Your task to perform on an android device: Add "macbook" to the cart on ebay, then select checkout. Image 0: 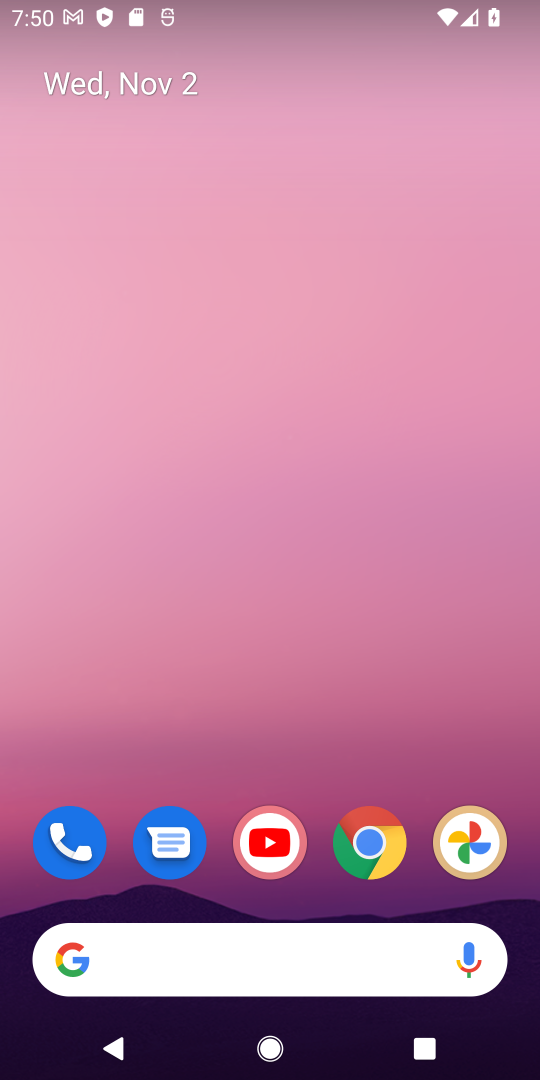
Step 0: drag from (199, 788) to (221, 375)
Your task to perform on an android device: Add "macbook" to the cart on ebay, then select checkout. Image 1: 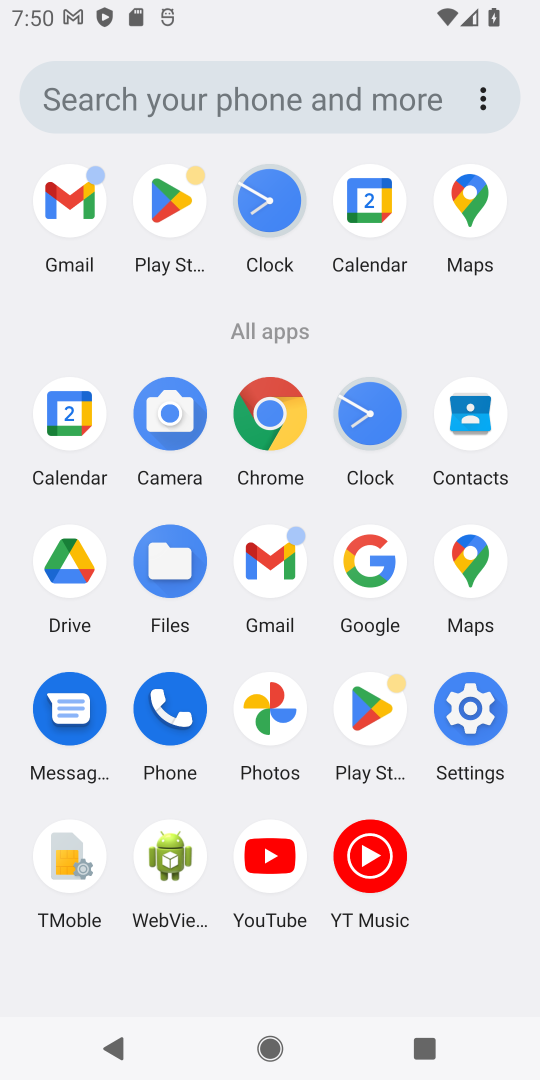
Step 1: click (359, 542)
Your task to perform on an android device: Add "macbook" to the cart on ebay, then select checkout. Image 2: 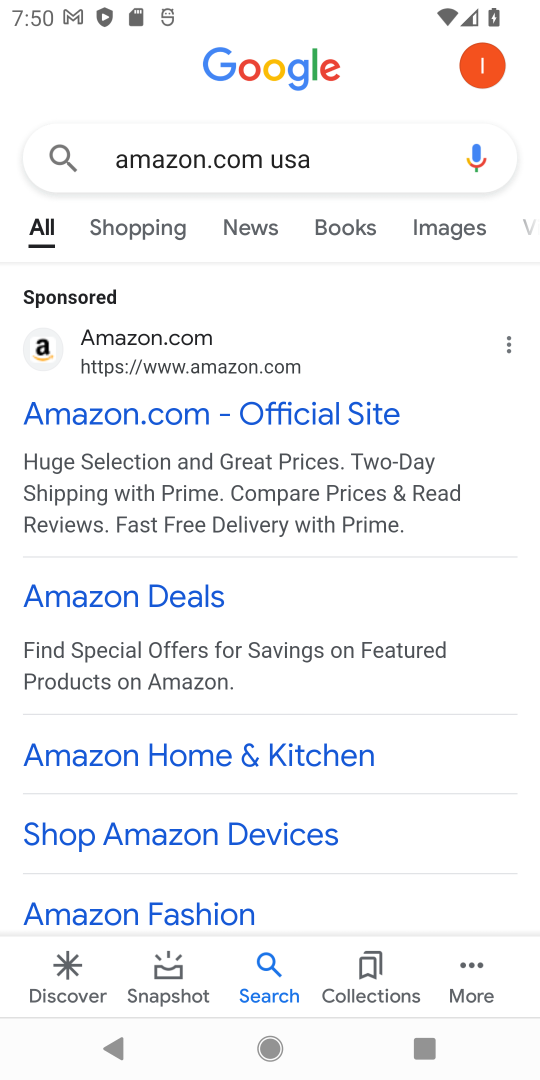
Step 2: click (246, 157)
Your task to perform on an android device: Add "macbook" to the cart on ebay, then select checkout. Image 3: 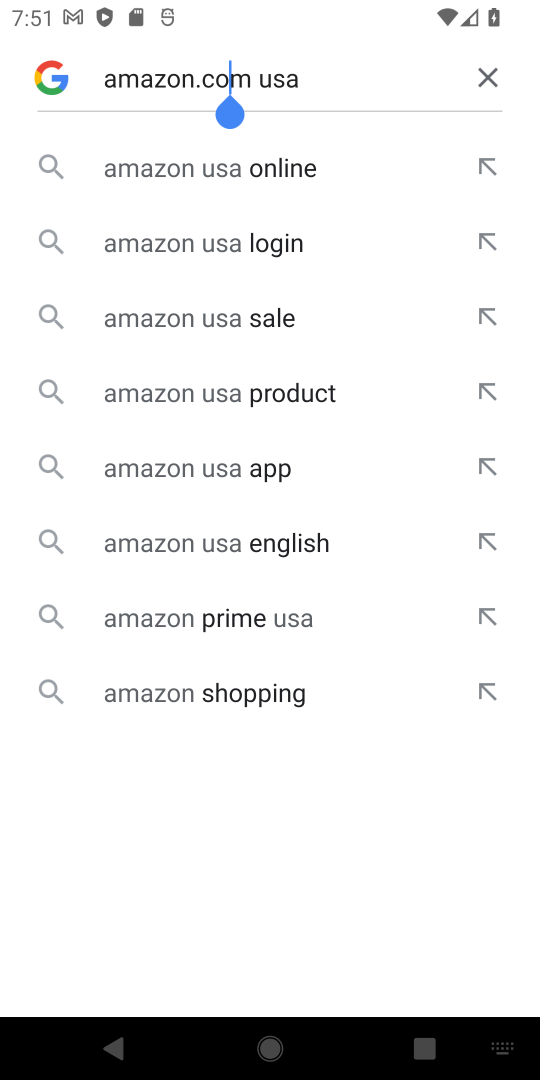
Step 3: click (473, 69)
Your task to perform on an android device: Add "macbook" to the cart on ebay, then select checkout. Image 4: 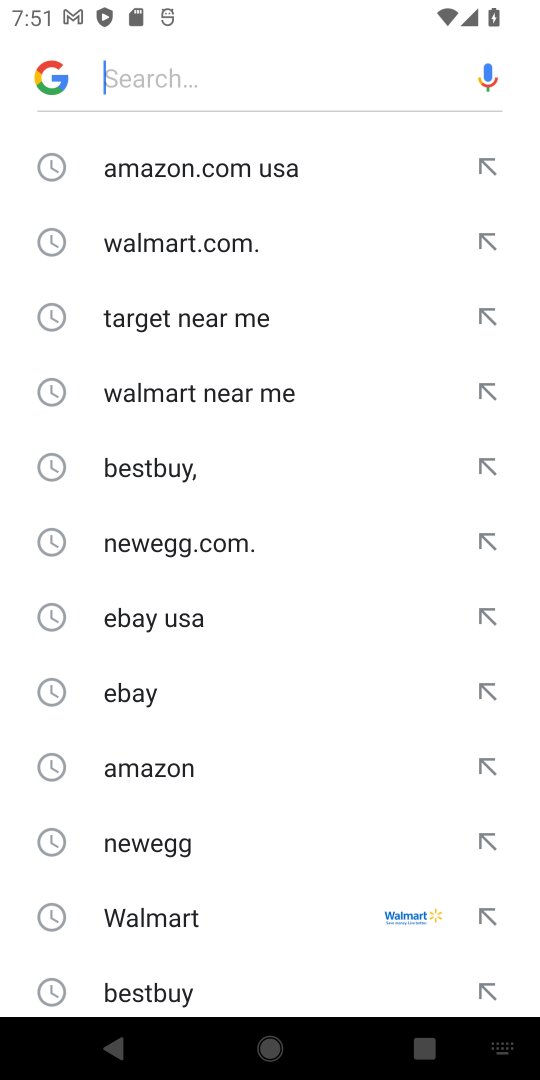
Step 4: click (216, 78)
Your task to perform on an android device: Add "macbook" to the cart on ebay, then select checkout. Image 5: 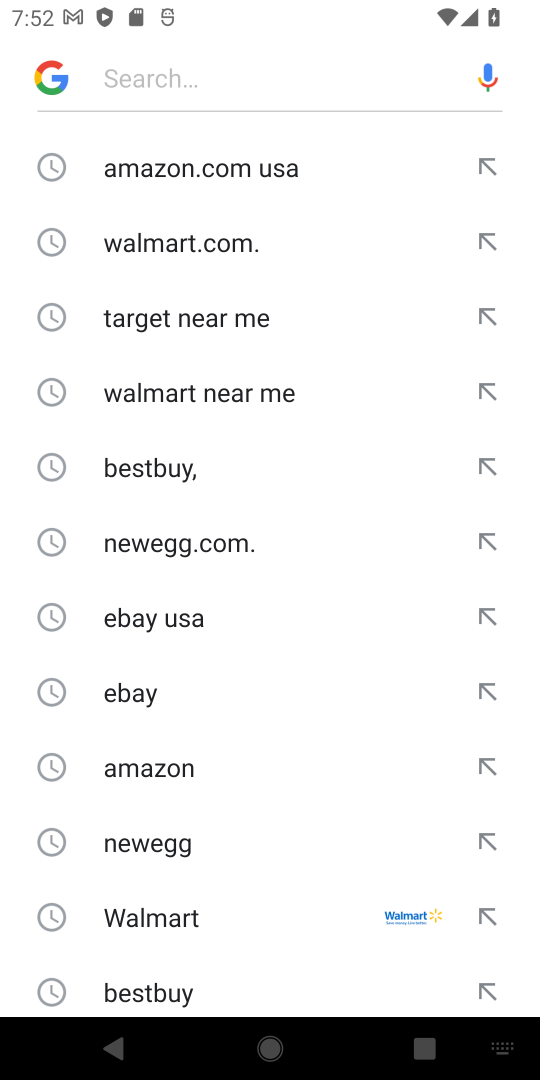
Step 5: click (257, 79)
Your task to perform on an android device: Add "macbook" to the cart on ebay, then select checkout. Image 6: 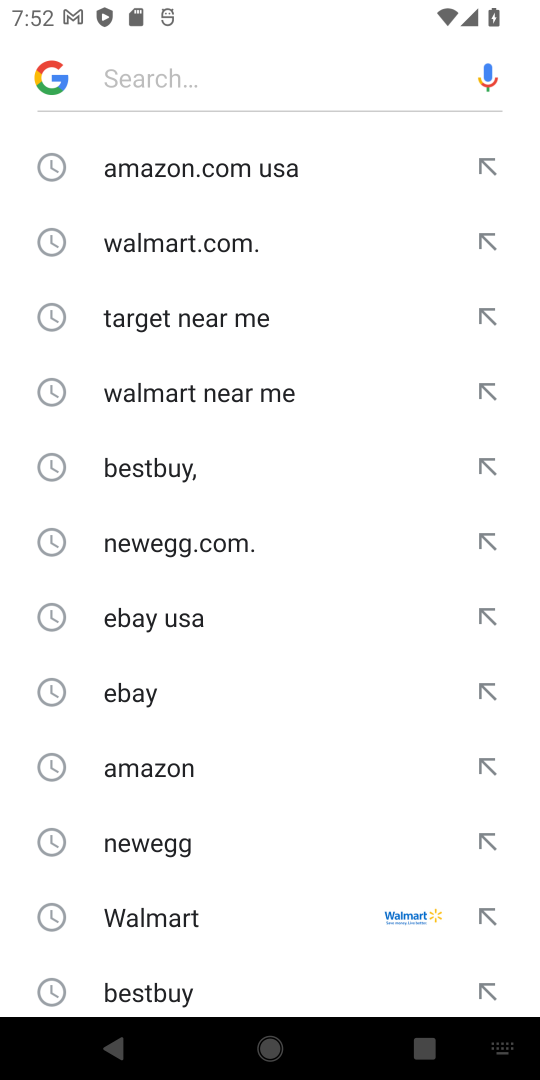
Step 6: type "ebay "
Your task to perform on an android device: Add "macbook" to the cart on ebay, then select checkout. Image 7: 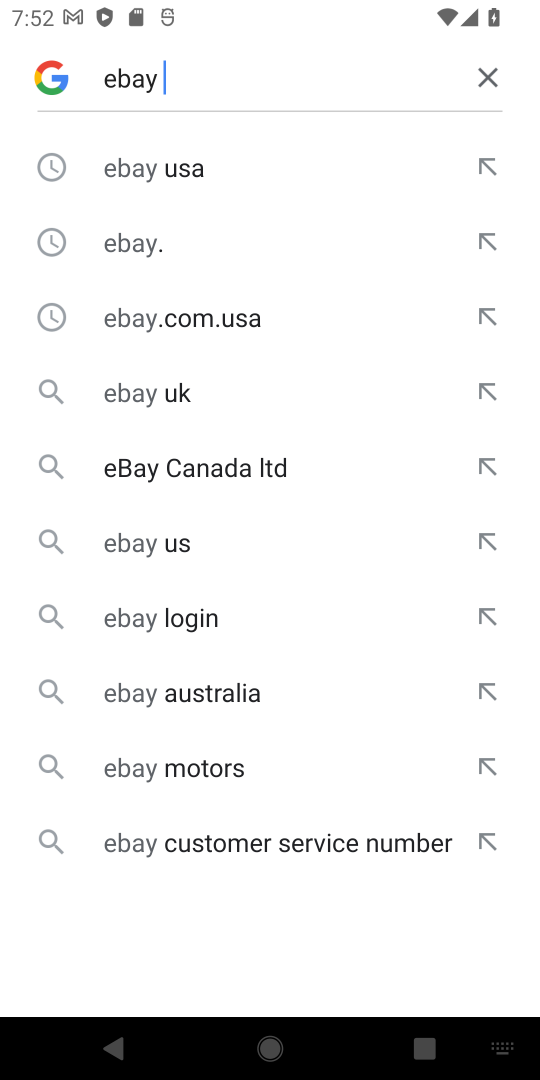
Step 7: click (187, 163)
Your task to perform on an android device: Add "macbook" to the cart on ebay, then select checkout. Image 8: 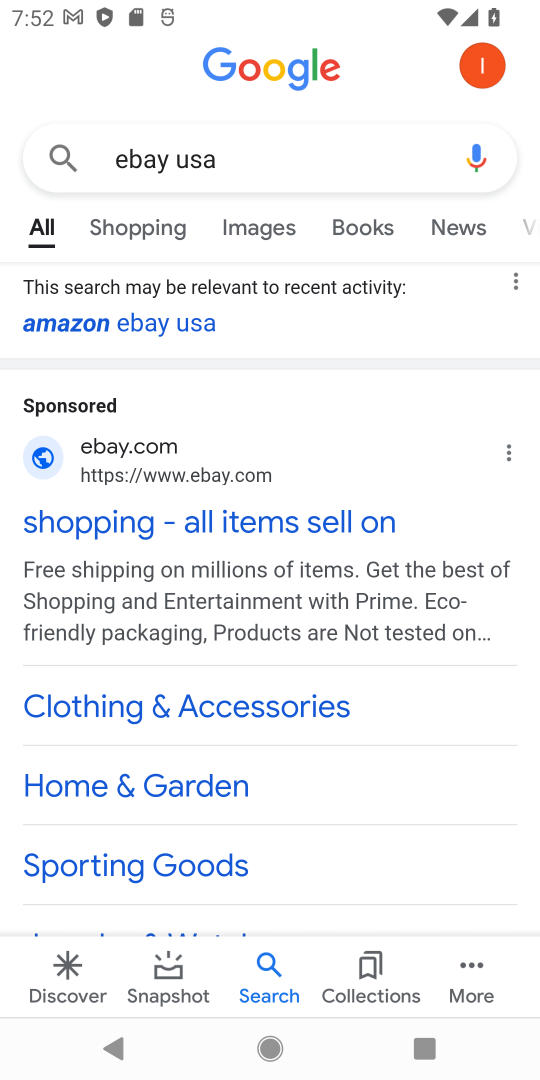
Step 8: drag from (167, 880) to (204, 315)
Your task to perform on an android device: Add "macbook" to the cart on ebay, then select checkout. Image 9: 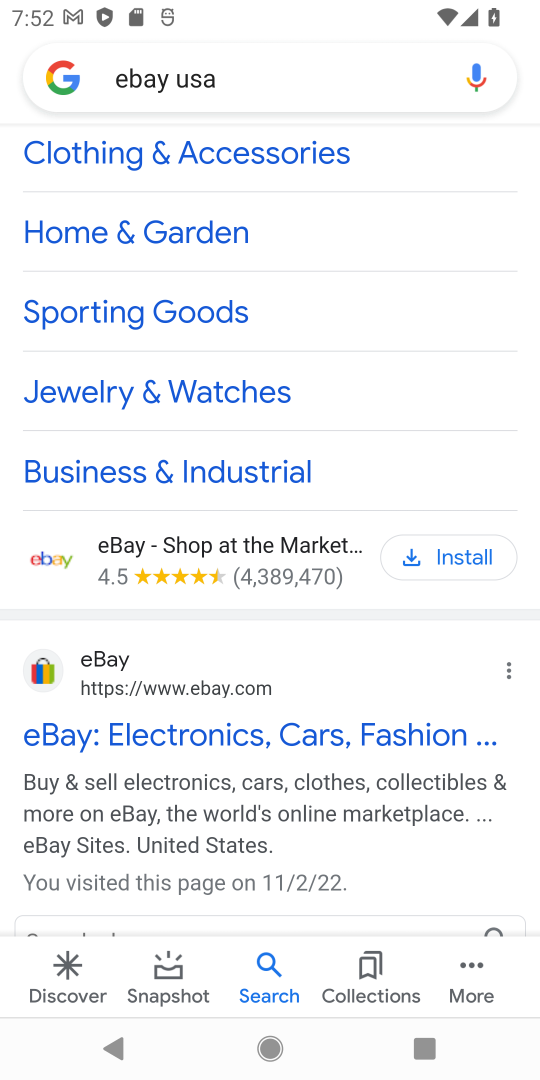
Step 9: click (38, 677)
Your task to perform on an android device: Add "macbook" to the cart on ebay, then select checkout. Image 10: 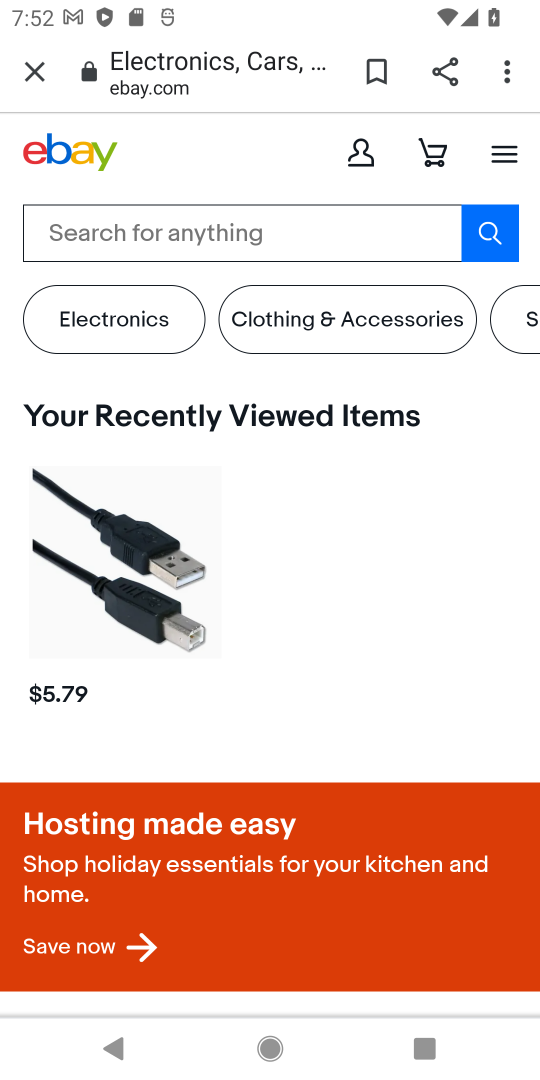
Step 10: click (192, 217)
Your task to perform on an android device: Add "macbook" to the cart on ebay, then select checkout. Image 11: 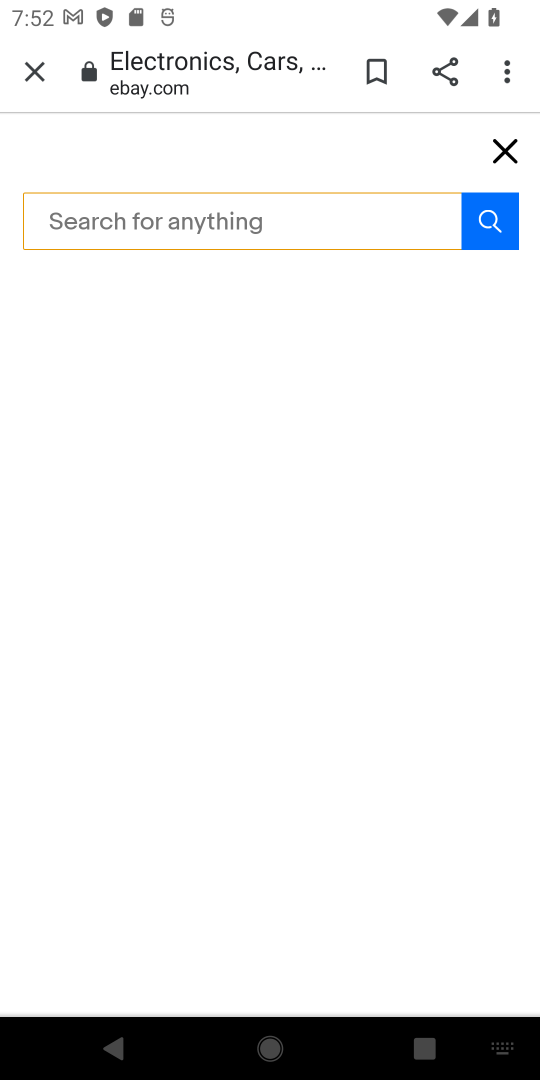
Step 11: click (195, 227)
Your task to perform on an android device: Add "macbook" to the cart on ebay, then select checkout. Image 12: 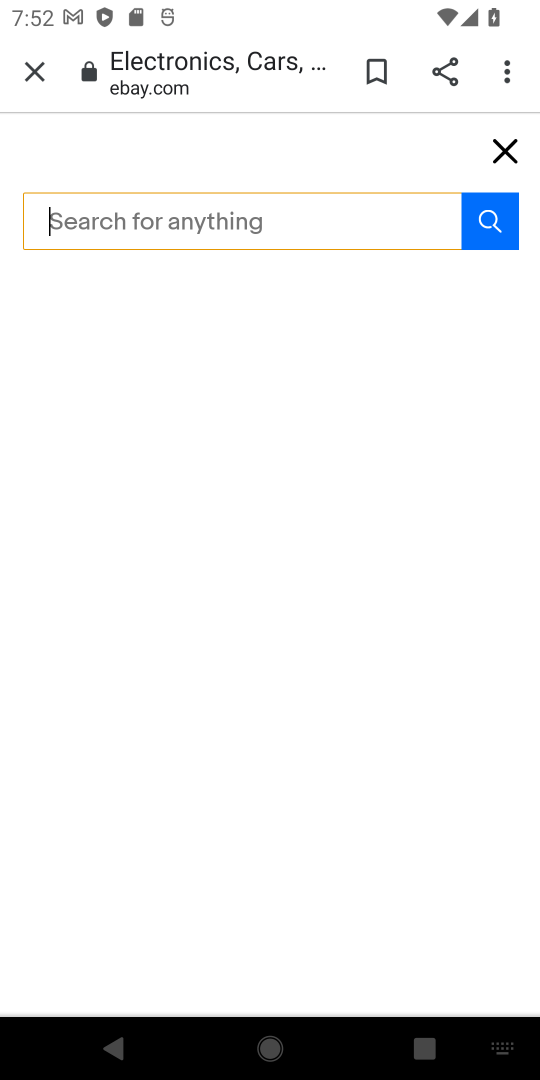
Step 12: type "macbook "
Your task to perform on an android device: Add "macbook" to the cart on ebay, then select checkout. Image 13: 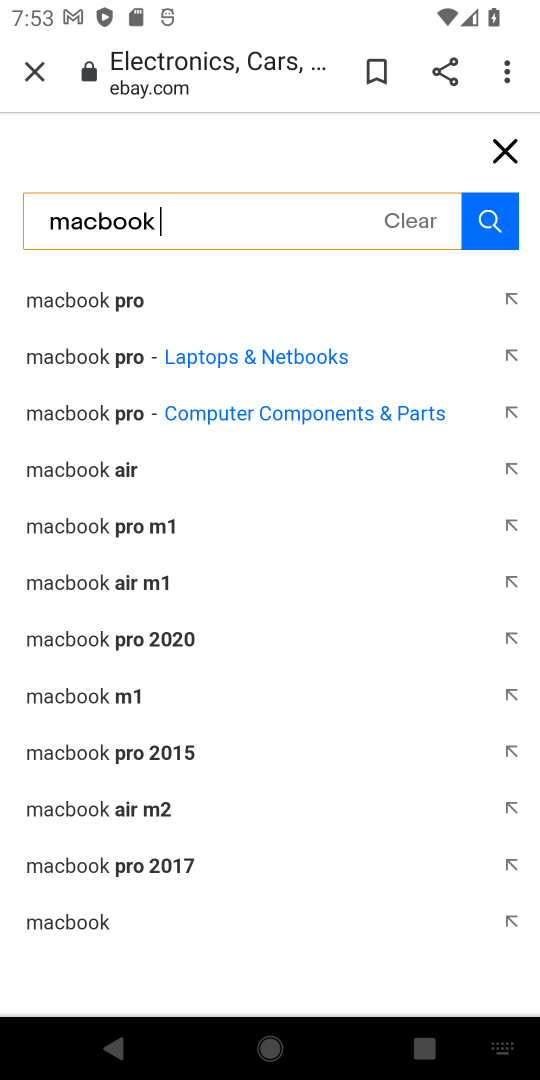
Step 13: click (75, 298)
Your task to perform on an android device: Add "macbook" to the cart on ebay, then select checkout. Image 14: 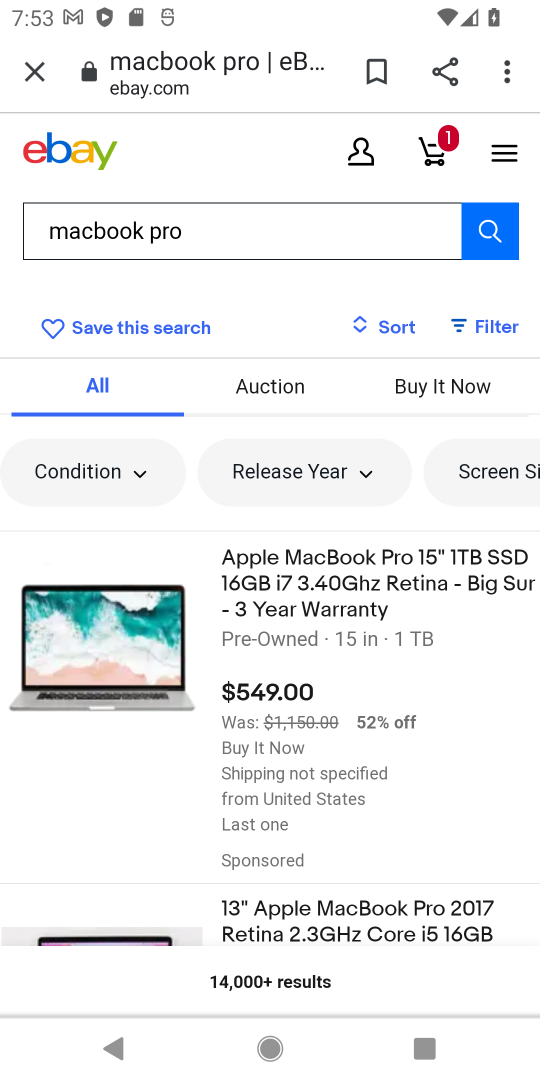
Step 14: click (418, 592)
Your task to perform on an android device: Add "macbook" to the cart on ebay, then select checkout. Image 15: 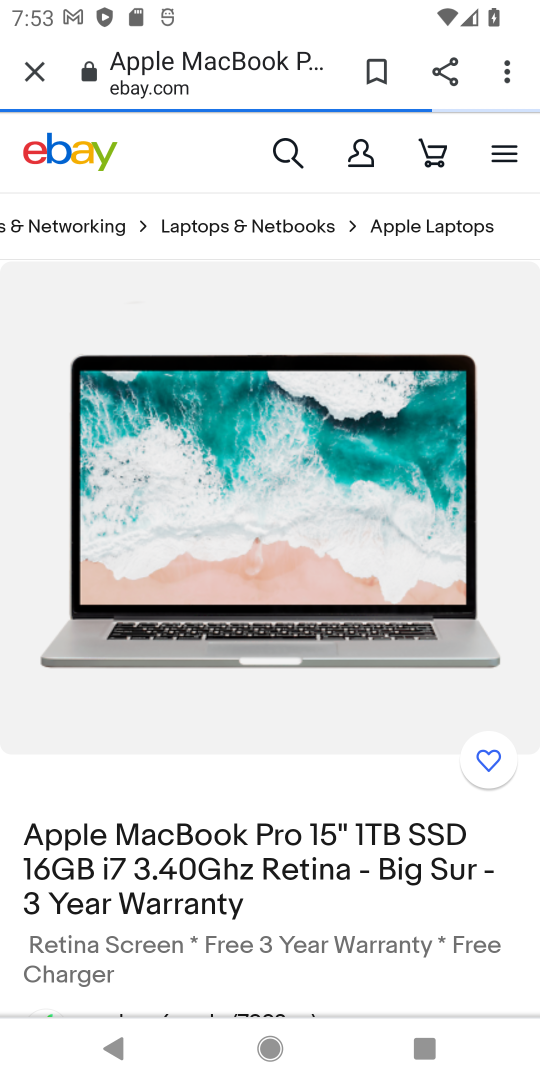
Step 15: drag from (285, 819) to (275, 229)
Your task to perform on an android device: Add "macbook" to the cart on ebay, then select checkout. Image 16: 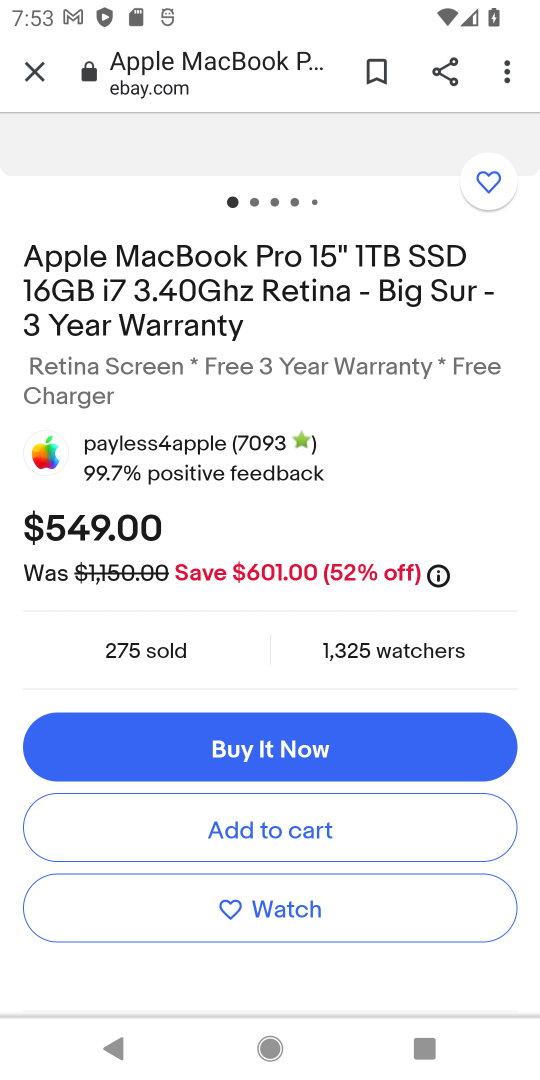
Step 16: click (297, 824)
Your task to perform on an android device: Add "macbook" to the cart on ebay, then select checkout. Image 17: 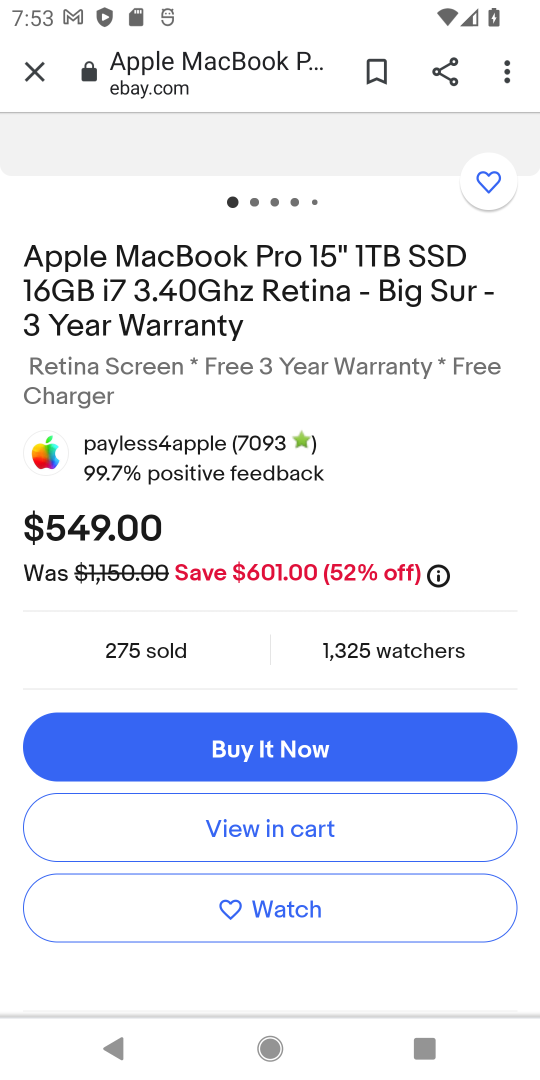
Step 17: task complete